Your task to perform on an android device: Is it going to rain this weekend? Image 0: 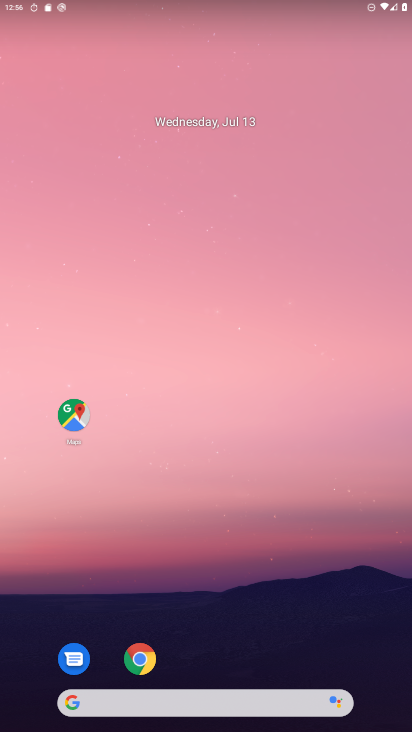
Step 0: drag from (333, 685) to (386, 380)
Your task to perform on an android device: Is it going to rain this weekend? Image 1: 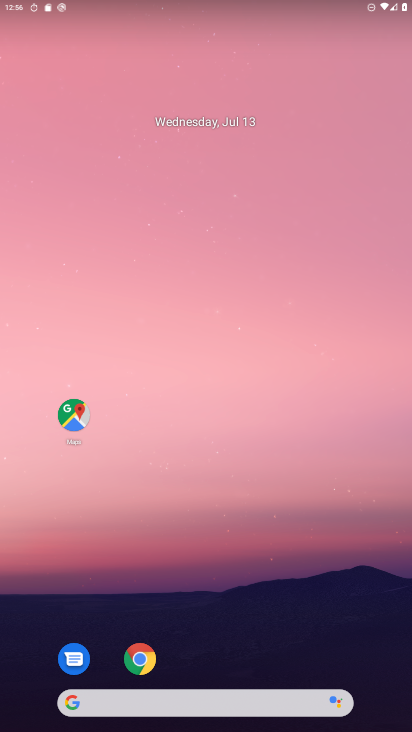
Step 1: drag from (286, 703) to (355, 141)
Your task to perform on an android device: Is it going to rain this weekend? Image 2: 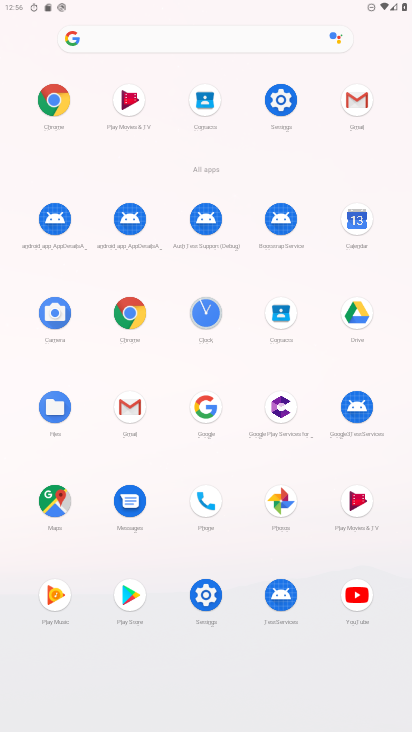
Step 2: click (125, 320)
Your task to perform on an android device: Is it going to rain this weekend? Image 3: 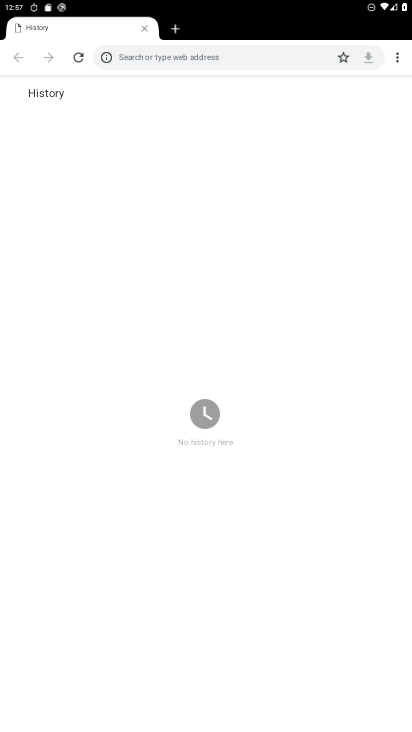
Step 3: click (235, 51)
Your task to perform on an android device: Is it going to rain this weekend? Image 4: 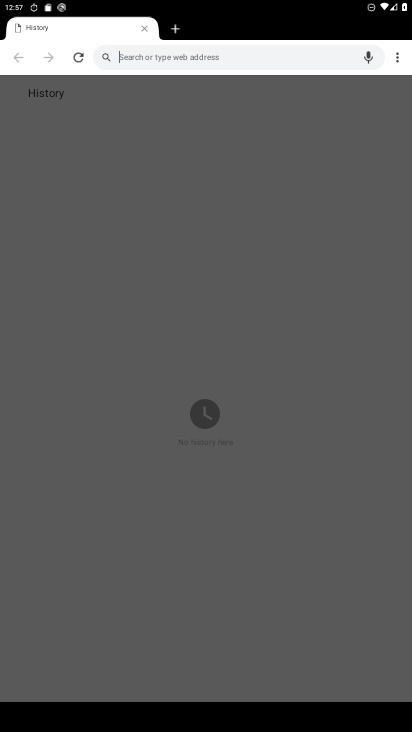
Step 4: type "going to rain this weekend"
Your task to perform on an android device: Is it going to rain this weekend? Image 5: 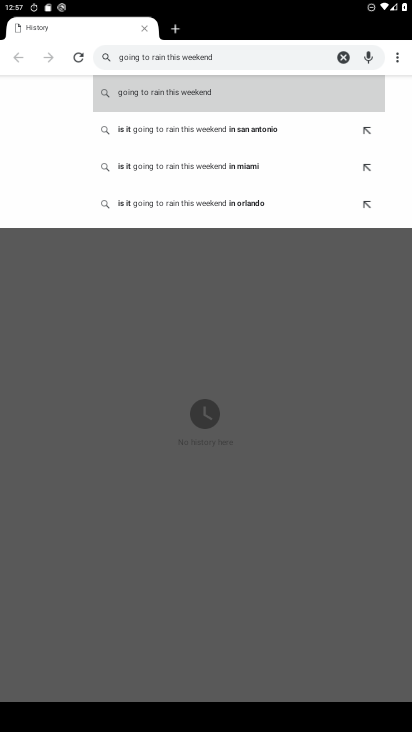
Step 5: click (248, 91)
Your task to perform on an android device: Is it going to rain this weekend? Image 6: 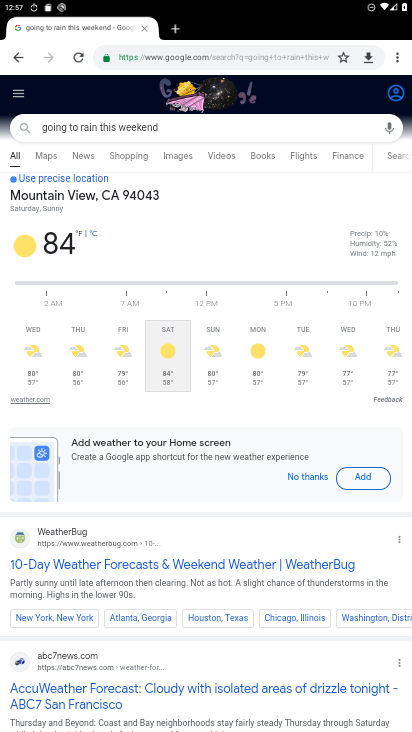
Step 6: task complete